Your task to perform on an android device: Open the map Image 0: 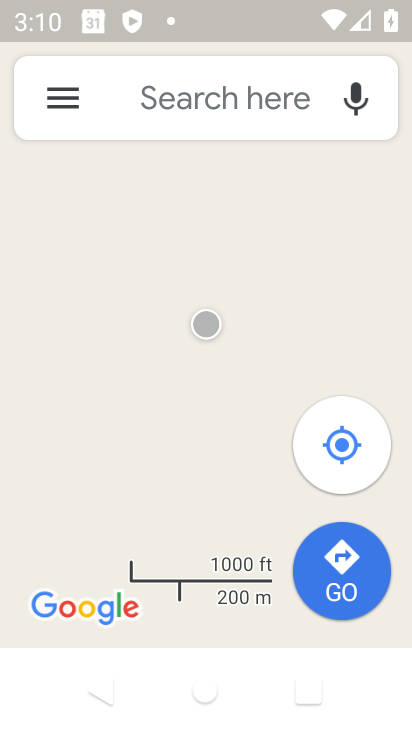
Step 0: press home button
Your task to perform on an android device: Open the map Image 1: 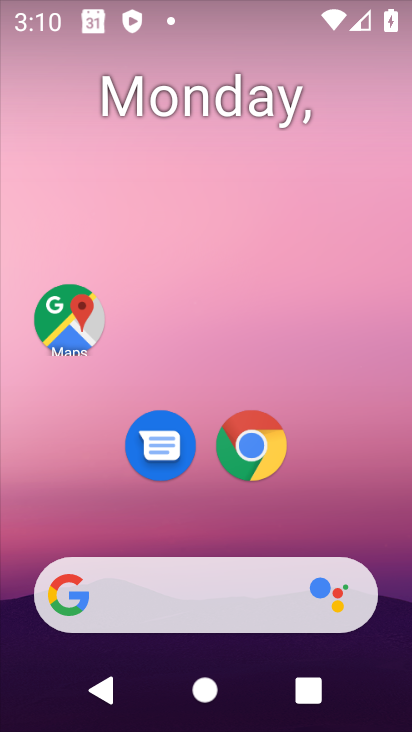
Step 1: drag from (387, 477) to (359, 46)
Your task to perform on an android device: Open the map Image 2: 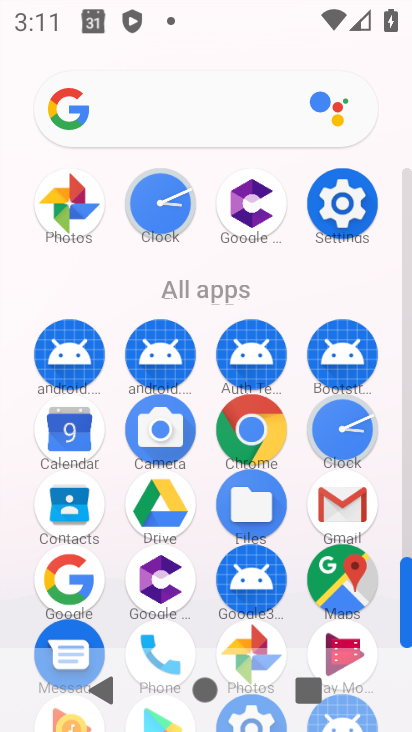
Step 2: drag from (401, 603) to (394, 682)
Your task to perform on an android device: Open the map Image 3: 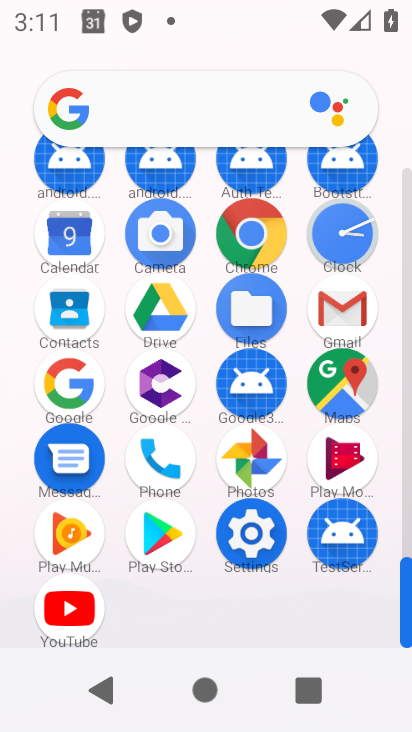
Step 3: click (349, 378)
Your task to perform on an android device: Open the map Image 4: 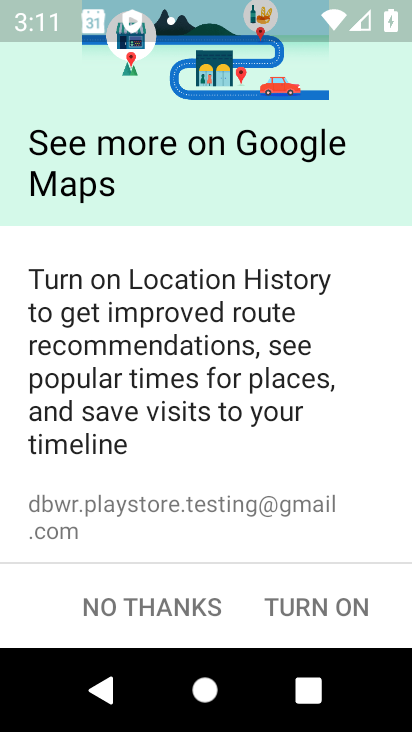
Step 4: click (138, 614)
Your task to perform on an android device: Open the map Image 5: 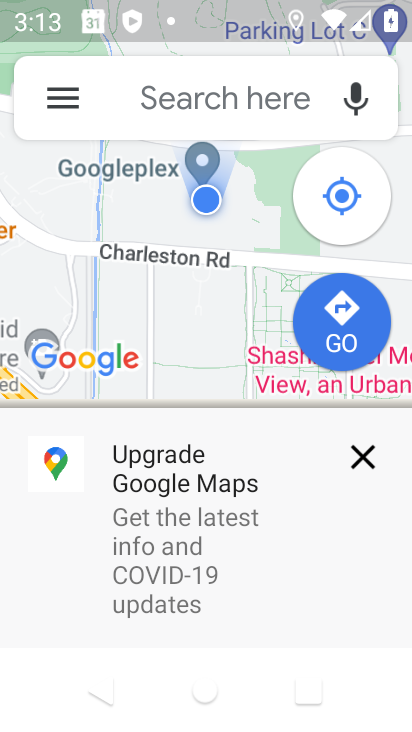
Step 5: task complete